Your task to perform on an android device: Is it going to rain tomorrow? Image 0: 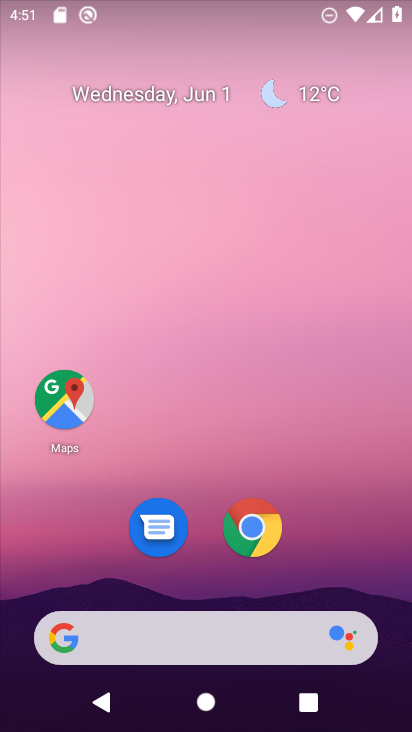
Step 0: click (324, 90)
Your task to perform on an android device: Is it going to rain tomorrow? Image 1: 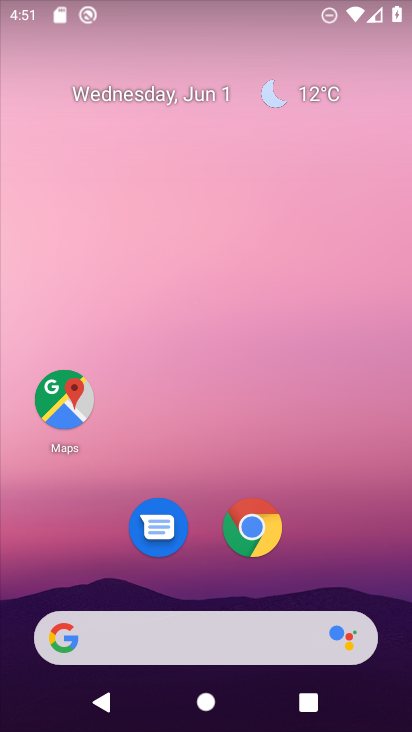
Step 1: click (324, 90)
Your task to perform on an android device: Is it going to rain tomorrow? Image 2: 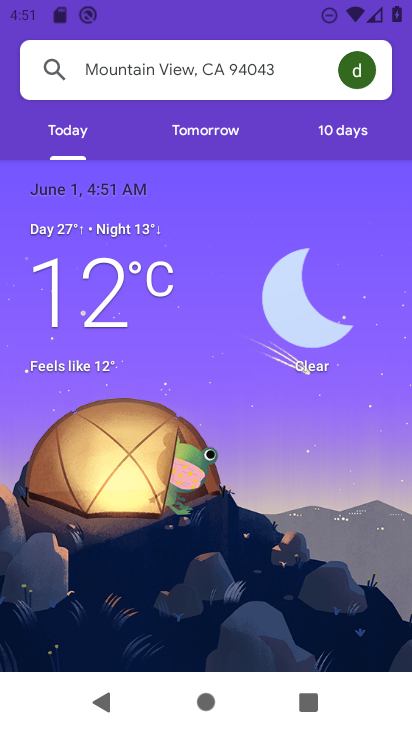
Step 2: task complete